Your task to perform on an android device: What's the weather today? Image 0: 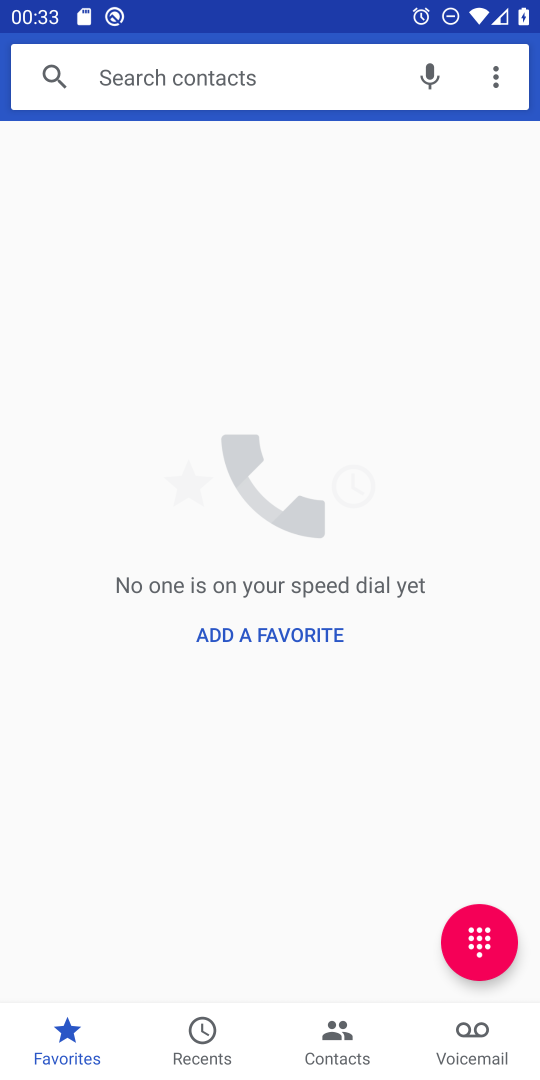
Step 0: press home button
Your task to perform on an android device: What's the weather today? Image 1: 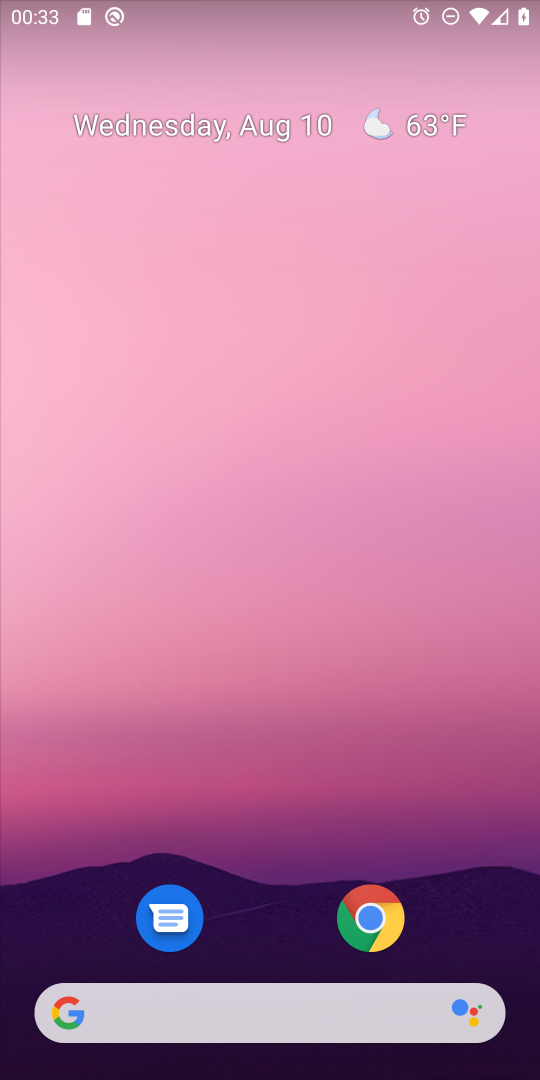
Step 1: click (444, 119)
Your task to perform on an android device: What's the weather today? Image 2: 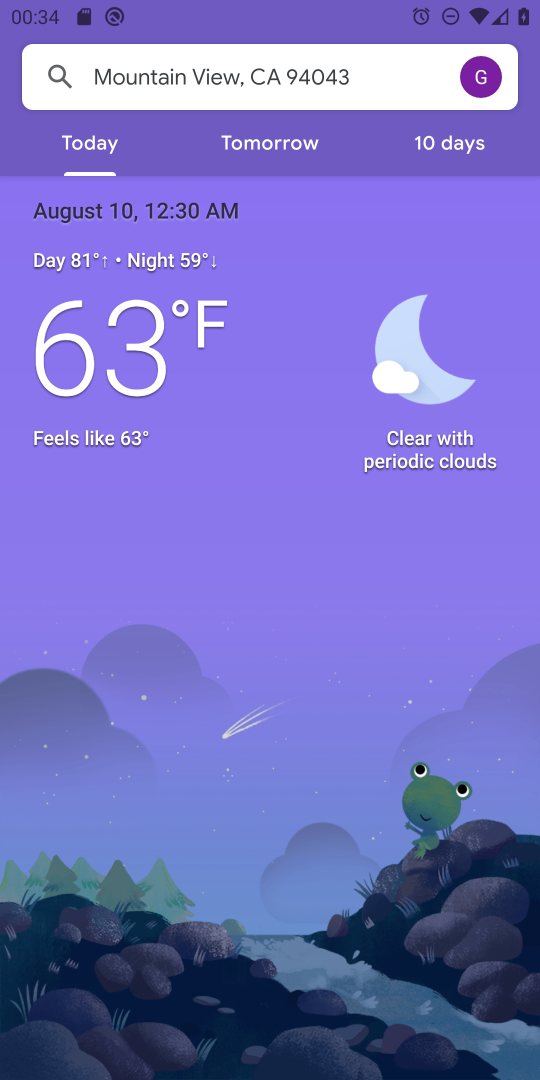
Step 2: task complete